Your task to perform on an android device: add a label to a message in the gmail app Image 0: 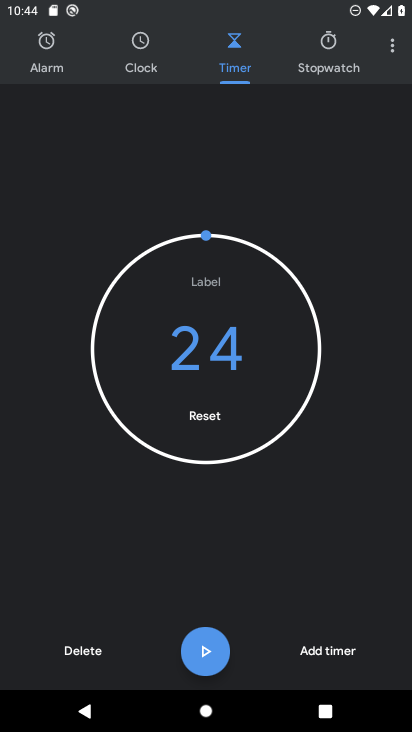
Step 0: press home button
Your task to perform on an android device: add a label to a message in the gmail app Image 1: 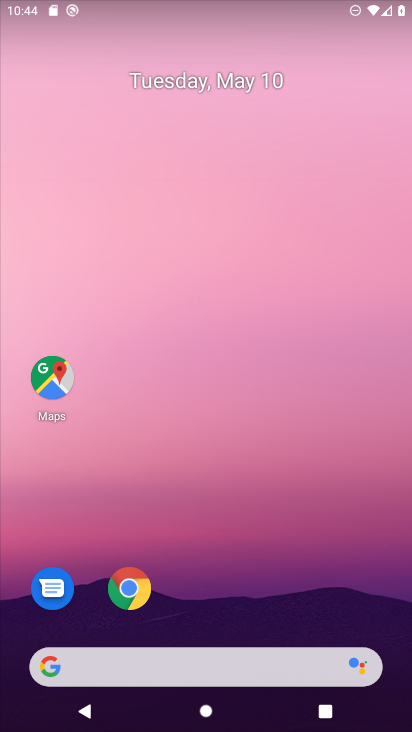
Step 1: drag from (208, 616) to (222, 193)
Your task to perform on an android device: add a label to a message in the gmail app Image 2: 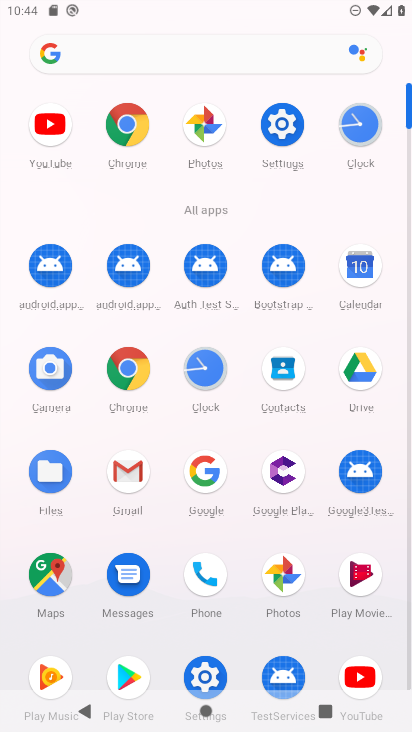
Step 2: click (116, 479)
Your task to perform on an android device: add a label to a message in the gmail app Image 3: 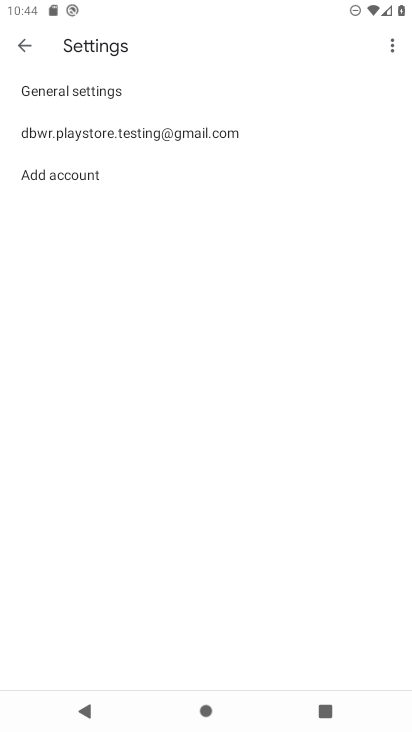
Step 3: click (21, 44)
Your task to perform on an android device: add a label to a message in the gmail app Image 4: 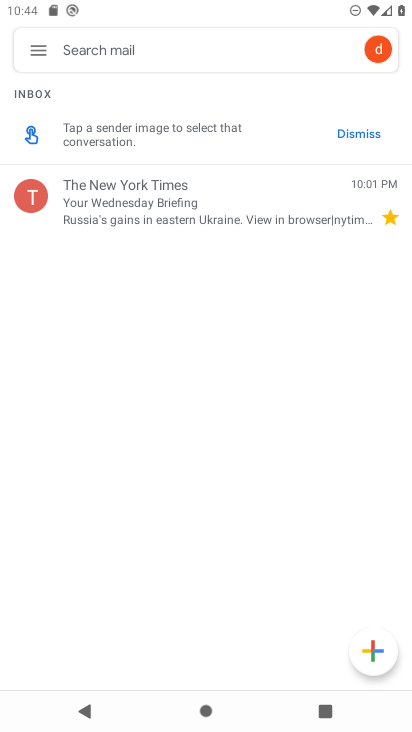
Step 4: click (113, 182)
Your task to perform on an android device: add a label to a message in the gmail app Image 5: 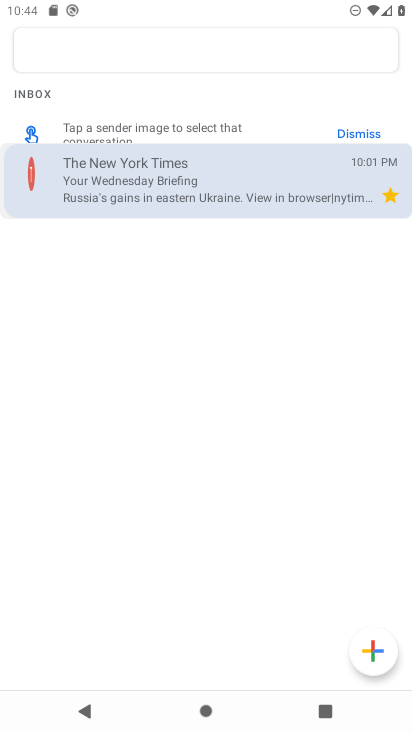
Step 5: click (113, 182)
Your task to perform on an android device: add a label to a message in the gmail app Image 6: 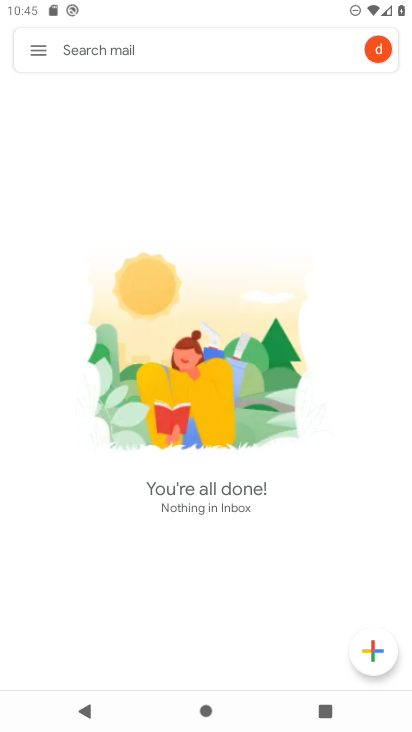
Step 6: click (30, 45)
Your task to perform on an android device: add a label to a message in the gmail app Image 7: 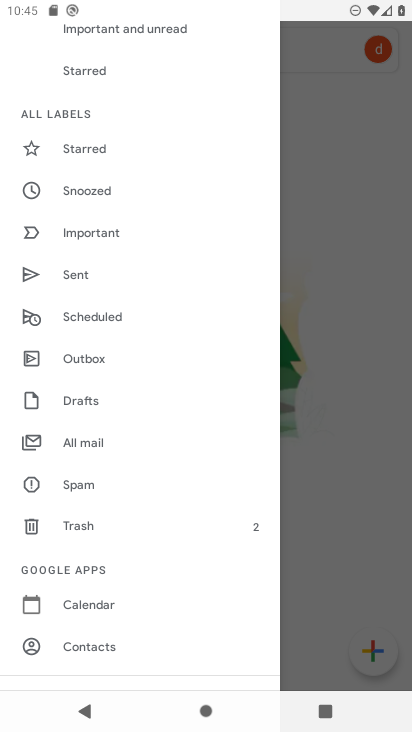
Step 7: click (97, 444)
Your task to perform on an android device: add a label to a message in the gmail app Image 8: 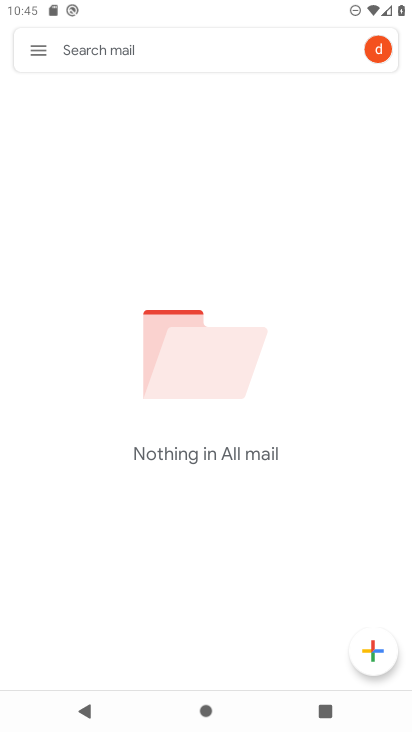
Step 8: task complete